Your task to perform on an android device: toggle javascript in the chrome app Image 0: 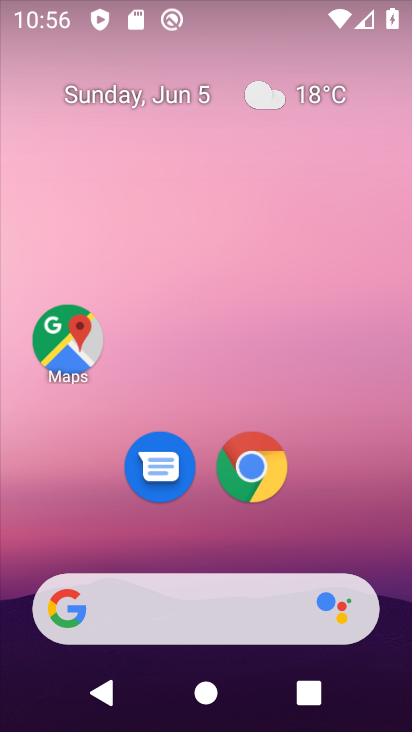
Step 0: click (254, 487)
Your task to perform on an android device: toggle javascript in the chrome app Image 1: 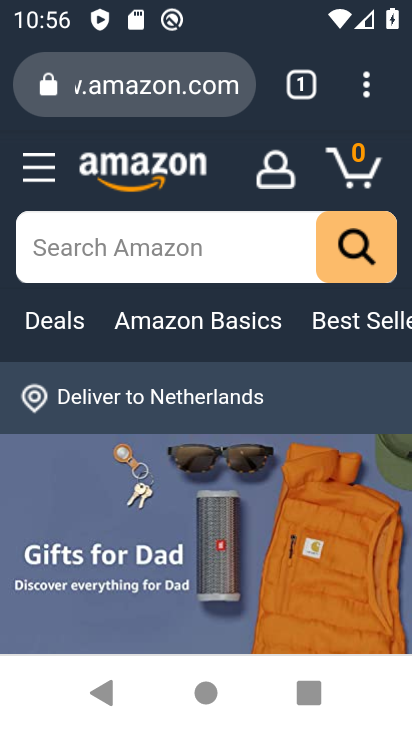
Step 1: click (365, 79)
Your task to perform on an android device: toggle javascript in the chrome app Image 2: 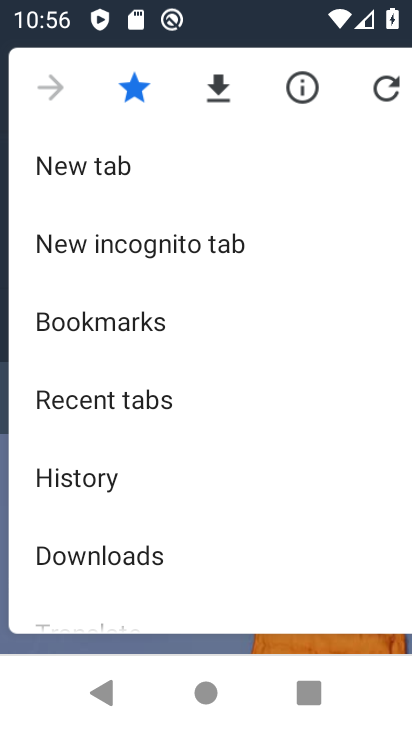
Step 2: drag from (155, 457) to (162, 111)
Your task to perform on an android device: toggle javascript in the chrome app Image 3: 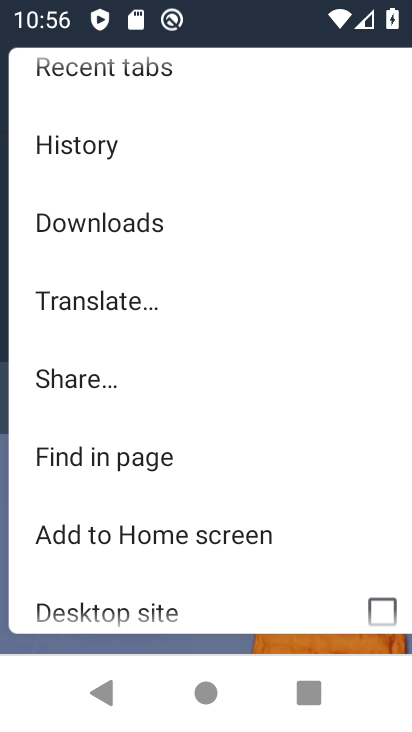
Step 3: drag from (127, 418) to (108, 169)
Your task to perform on an android device: toggle javascript in the chrome app Image 4: 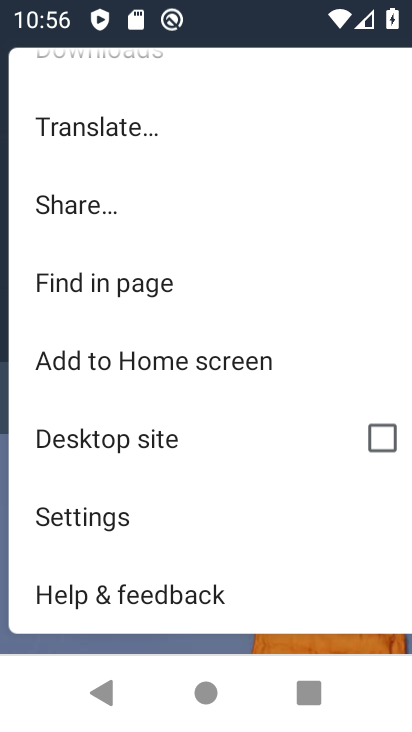
Step 4: click (47, 535)
Your task to perform on an android device: toggle javascript in the chrome app Image 5: 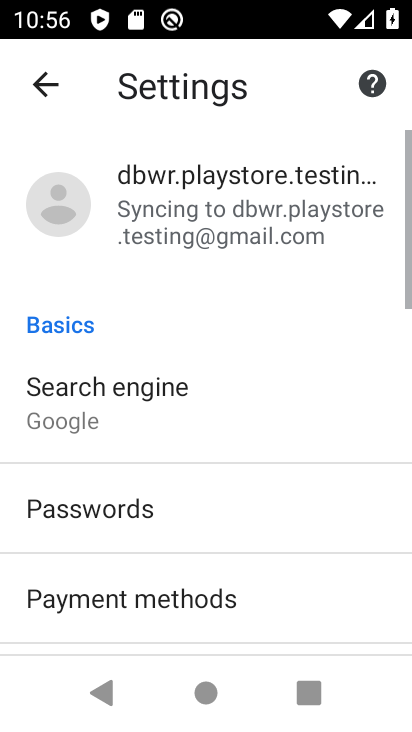
Step 5: drag from (47, 535) to (45, 6)
Your task to perform on an android device: toggle javascript in the chrome app Image 6: 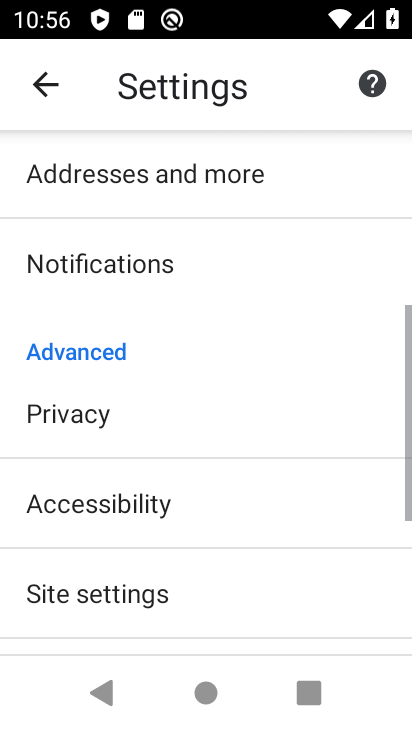
Step 6: drag from (115, 379) to (69, 33)
Your task to perform on an android device: toggle javascript in the chrome app Image 7: 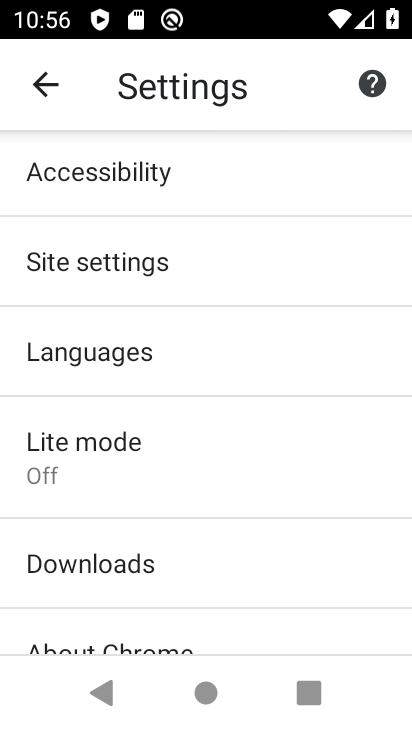
Step 7: click (98, 249)
Your task to perform on an android device: toggle javascript in the chrome app Image 8: 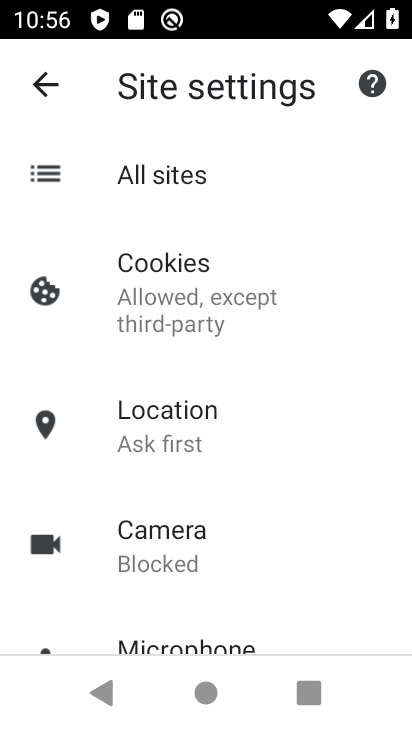
Step 8: drag from (154, 526) to (106, 275)
Your task to perform on an android device: toggle javascript in the chrome app Image 9: 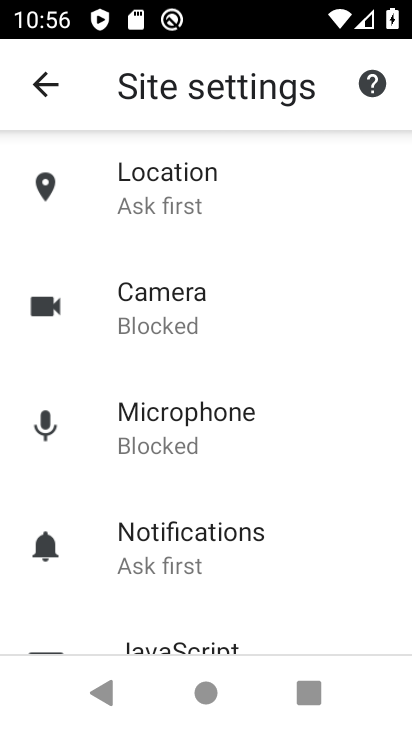
Step 9: click (141, 637)
Your task to perform on an android device: toggle javascript in the chrome app Image 10: 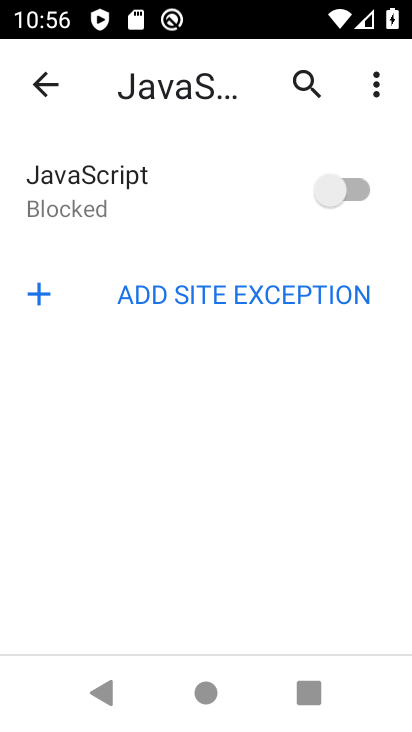
Step 10: click (336, 204)
Your task to perform on an android device: toggle javascript in the chrome app Image 11: 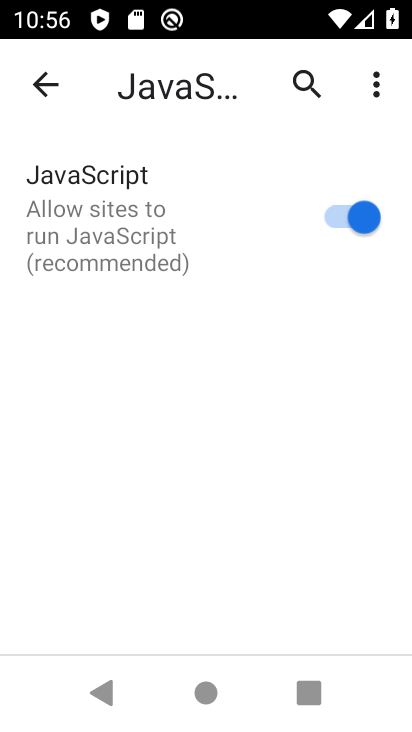
Step 11: task complete